Your task to perform on an android device: Go to location settings Image 0: 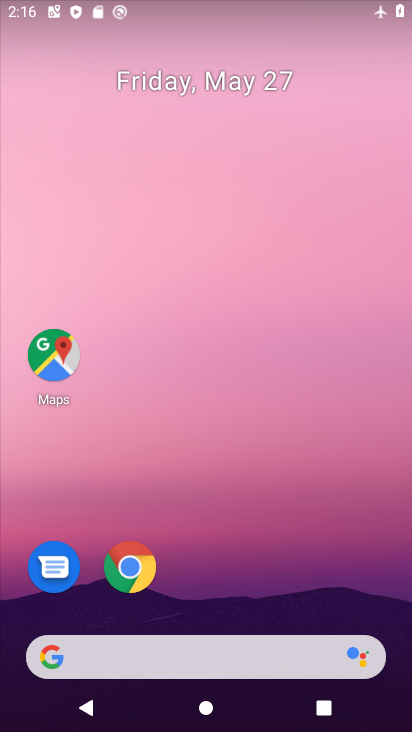
Step 0: drag from (242, 582) to (226, 110)
Your task to perform on an android device: Go to location settings Image 1: 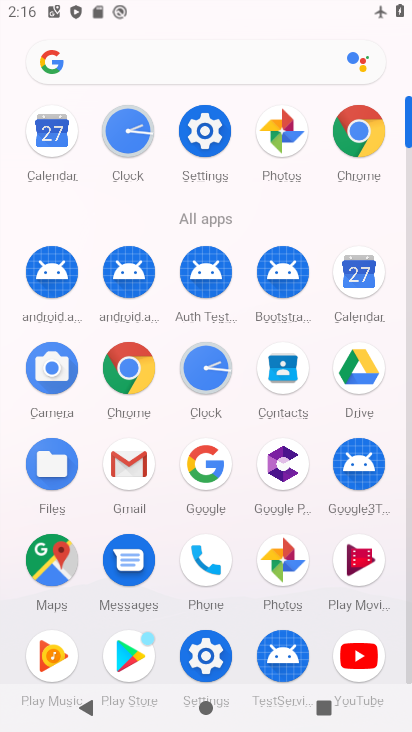
Step 1: click (203, 120)
Your task to perform on an android device: Go to location settings Image 2: 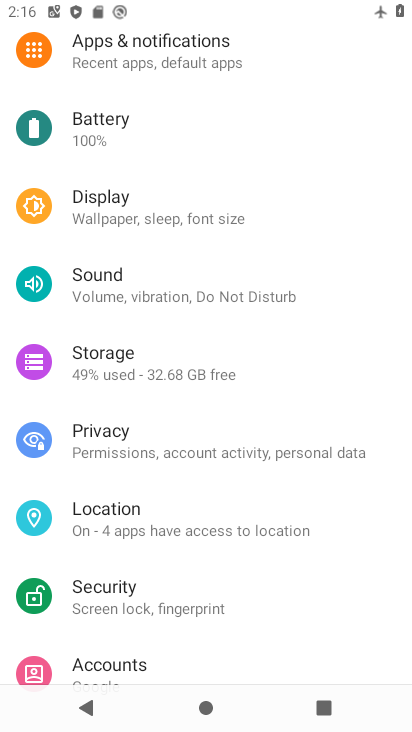
Step 2: click (126, 517)
Your task to perform on an android device: Go to location settings Image 3: 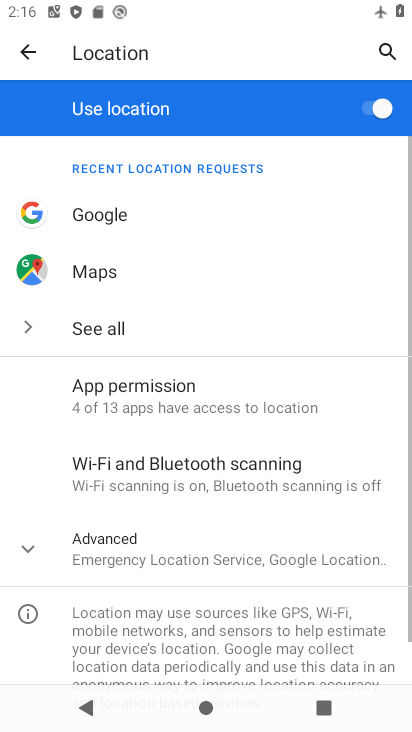
Step 3: task complete